Your task to perform on an android device: turn off sleep mode Image 0: 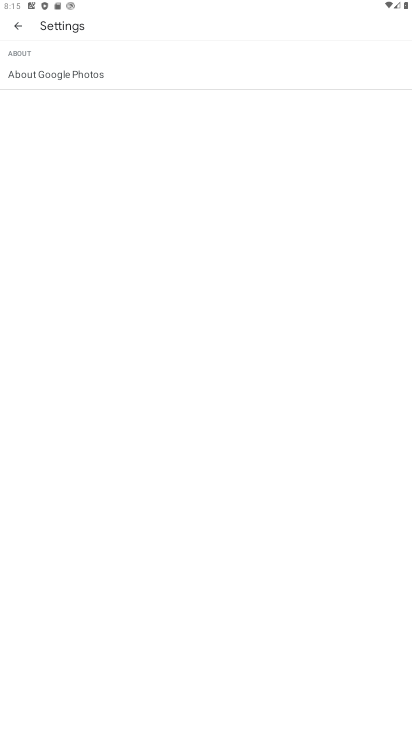
Step 0: press home button
Your task to perform on an android device: turn off sleep mode Image 1: 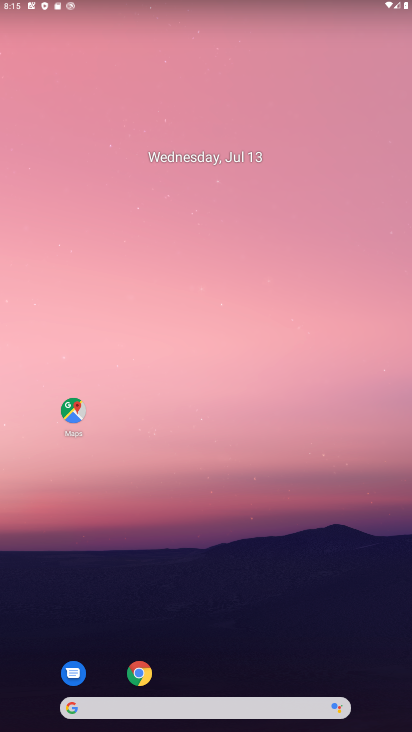
Step 1: drag from (376, 666) to (274, 139)
Your task to perform on an android device: turn off sleep mode Image 2: 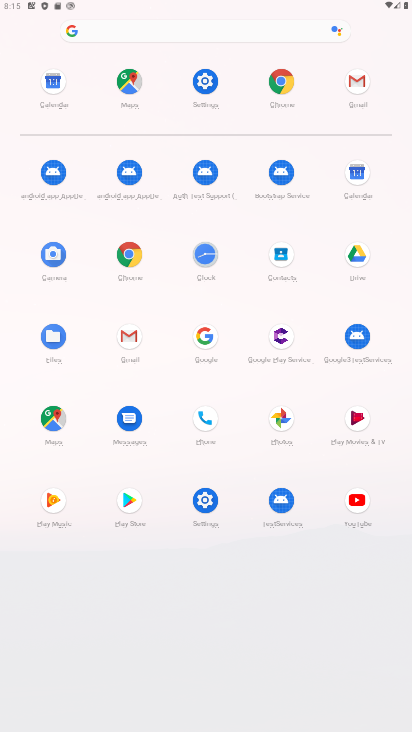
Step 2: click (212, 80)
Your task to perform on an android device: turn off sleep mode Image 3: 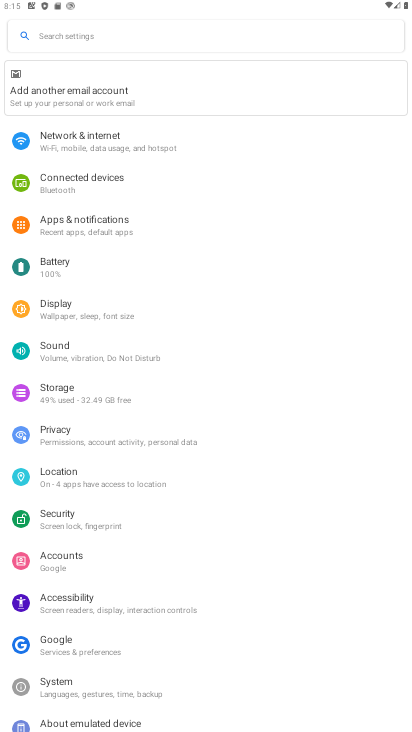
Step 3: click (58, 303)
Your task to perform on an android device: turn off sleep mode Image 4: 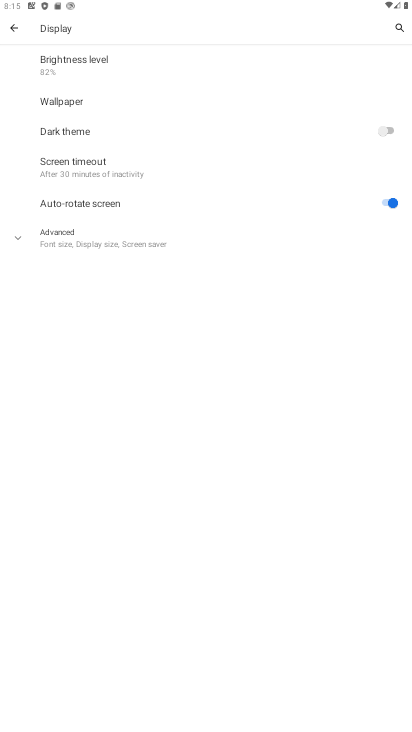
Step 4: click (95, 171)
Your task to perform on an android device: turn off sleep mode Image 5: 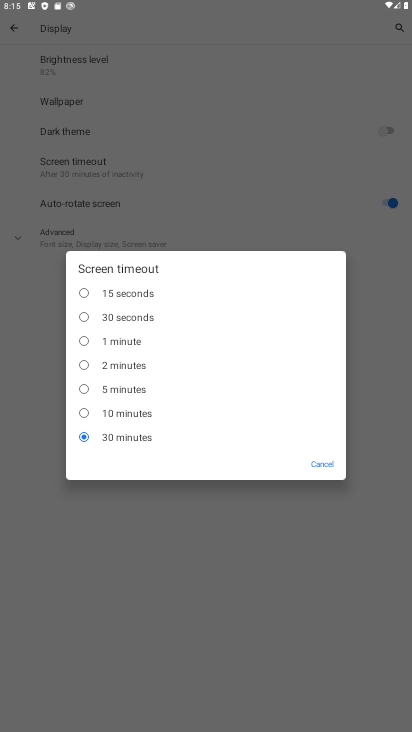
Step 5: task complete